Your task to perform on an android device: turn on location history Image 0: 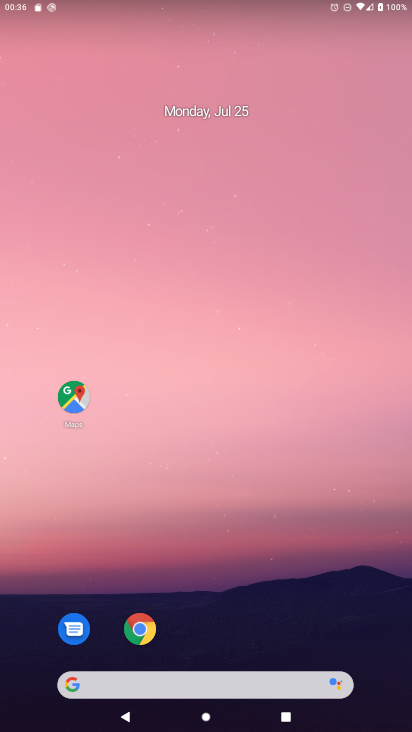
Step 0: drag from (178, 654) to (236, 96)
Your task to perform on an android device: turn on location history Image 1: 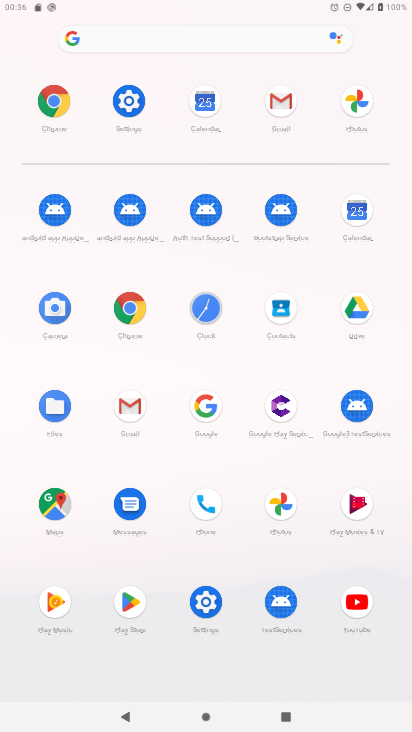
Step 1: click (198, 596)
Your task to perform on an android device: turn on location history Image 2: 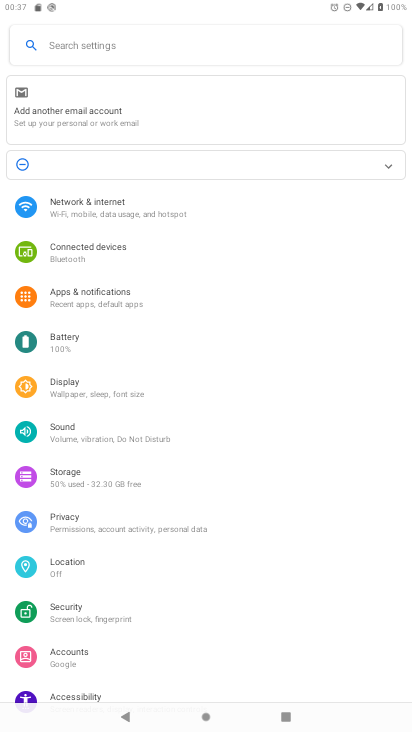
Step 2: click (86, 567)
Your task to perform on an android device: turn on location history Image 3: 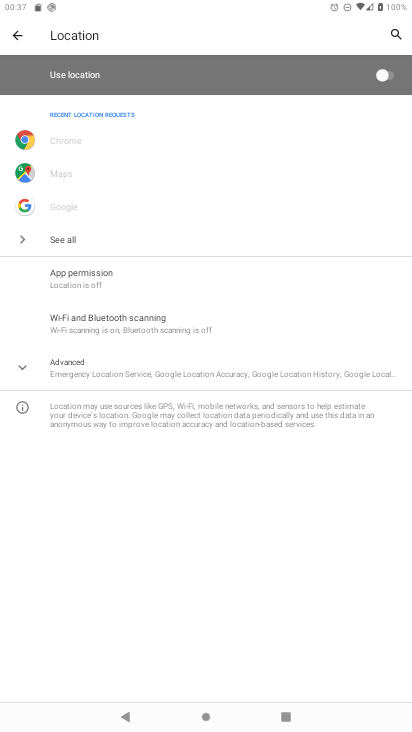
Step 3: click (371, 73)
Your task to perform on an android device: turn on location history Image 4: 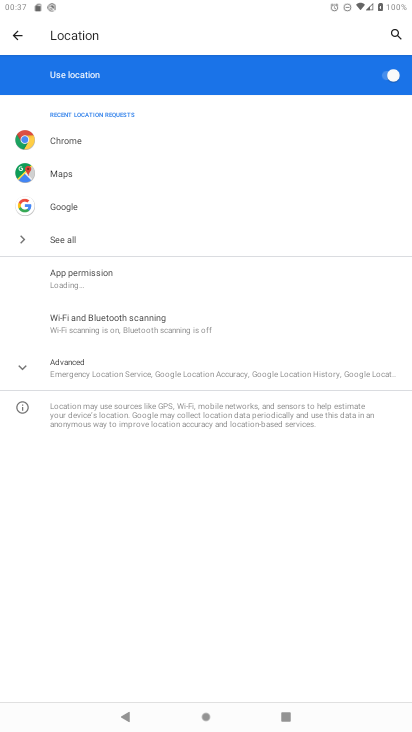
Step 4: task complete